Your task to perform on an android device: Search for the new nike air max 270 on Nike.com Image 0: 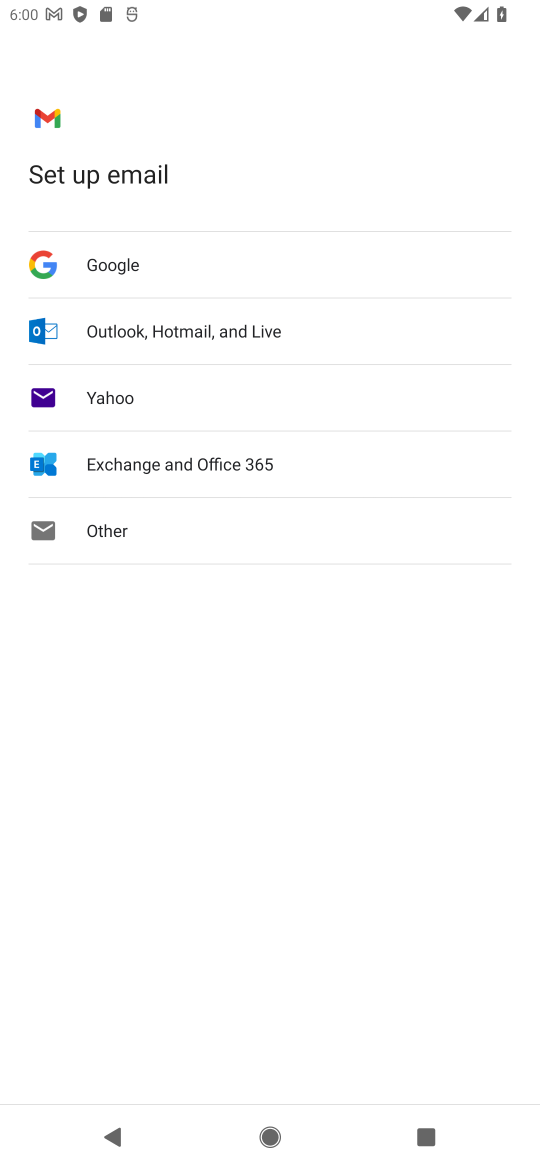
Step 0: press home button
Your task to perform on an android device: Search for the new nike air max 270 on Nike.com Image 1: 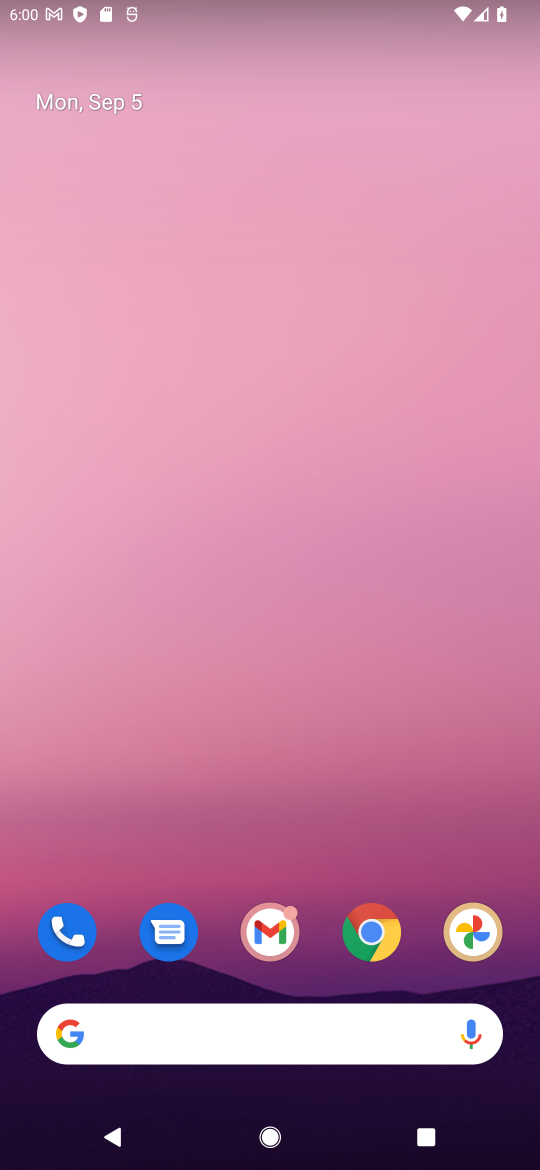
Step 1: drag from (309, 998) to (247, 195)
Your task to perform on an android device: Search for the new nike air max 270 on Nike.com Image 2: 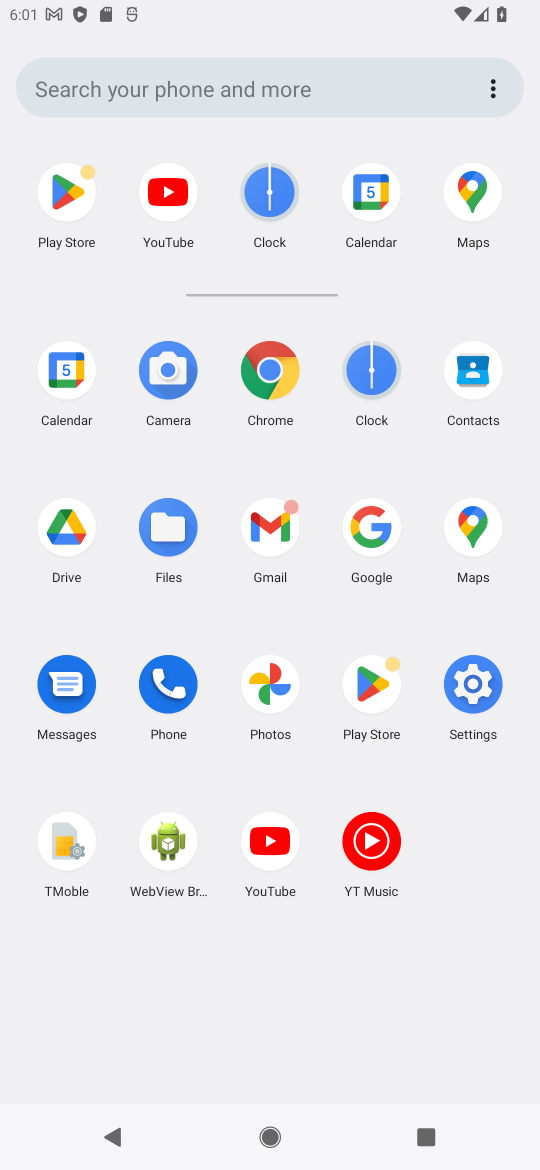
Step 2: click (269, 368)
Your task to perform on an android device: Search for the new nike air max 270 on Nike.com Image 3: 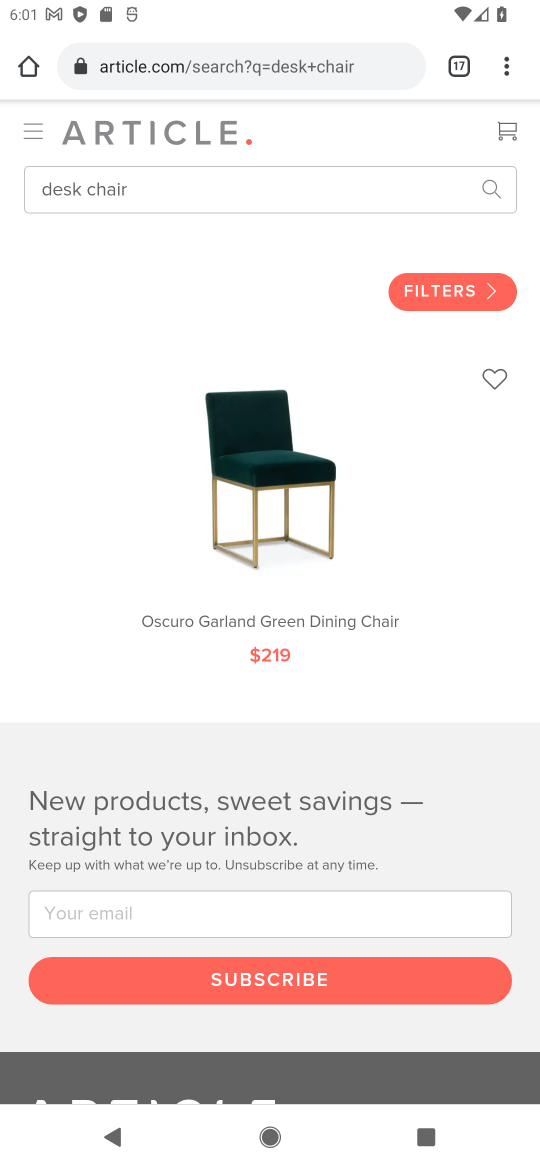
Step 3: click (504, 78)
Your task to perform on an android device: Search for the new nike air max 270 on Nike.com Image 4: 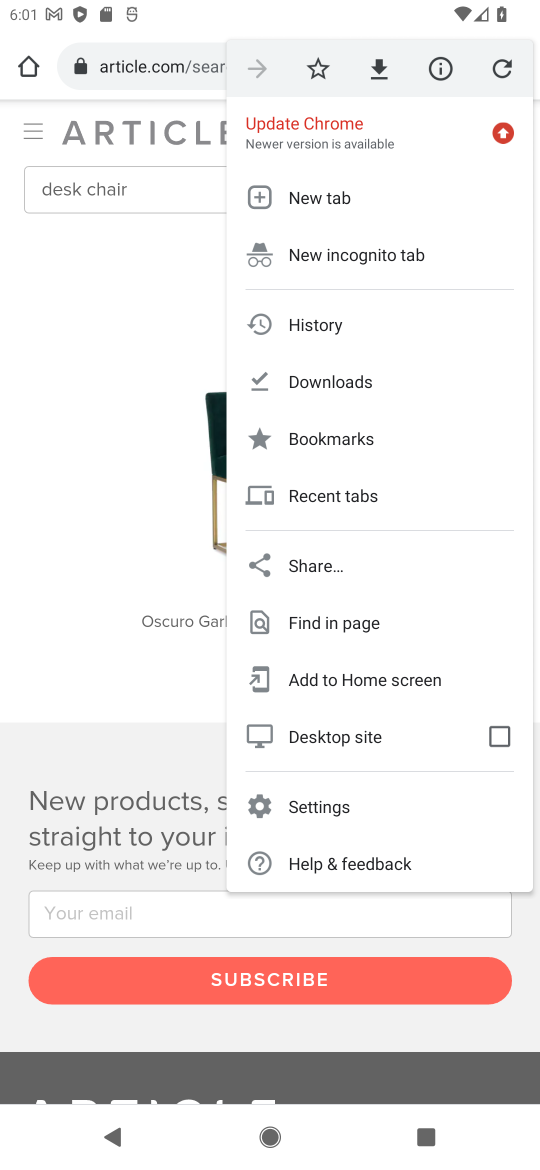
Step 4: click (311, 196)
Your task to perform on an android device: Search for the new nike air max 270 on Nike.com Image 5: 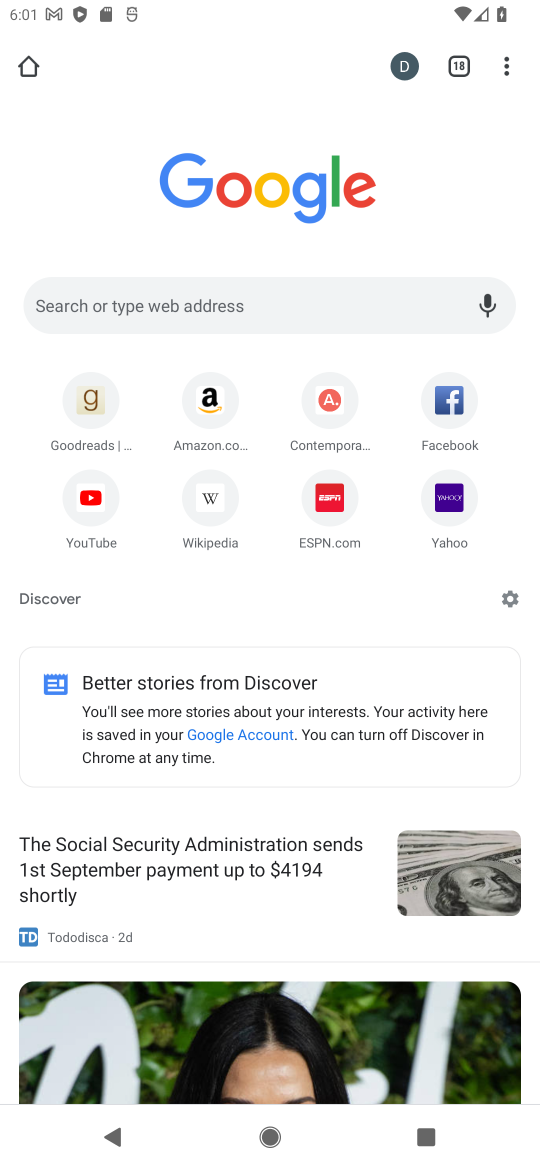
Step 5: click (197, 303)
Your task to perform on an android device: Search for the new nike air max 270 on Nike.com Image 6: 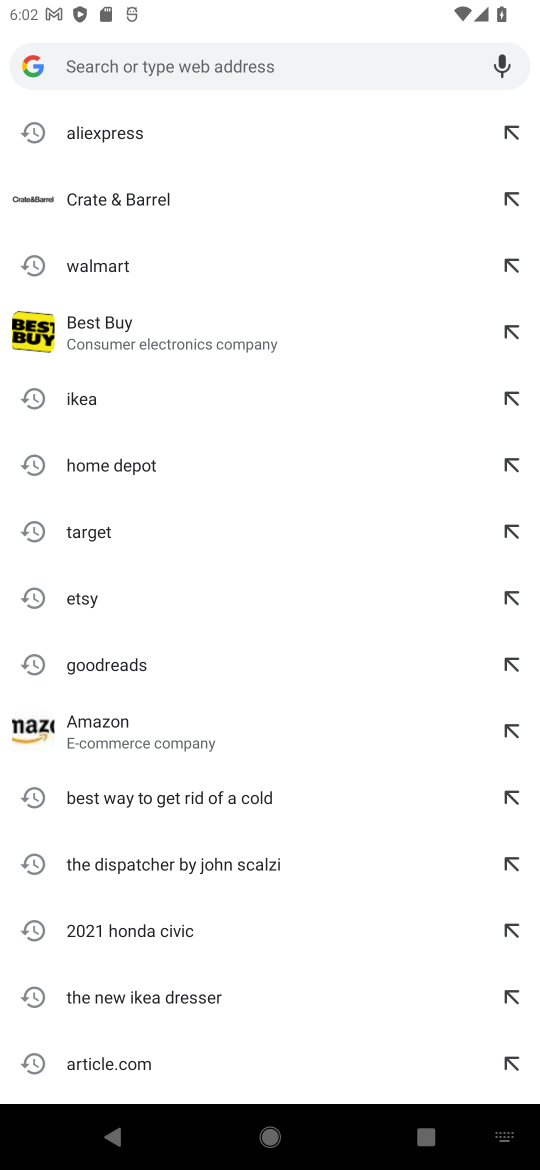
Step 6: type "Nike.com"
Your task to perform on an android device: Search for the new nike air max 270 on Nike.com Image 7: 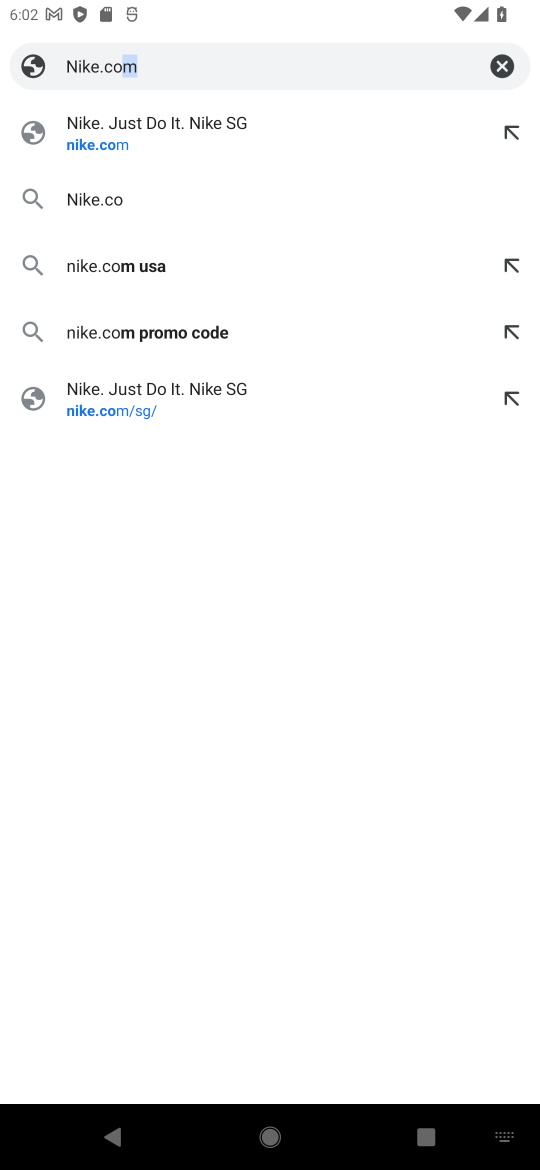
Step 7: type ""
Your task to perform on an android device: Search for the new nike air max 270 on Nike.com Image 8: 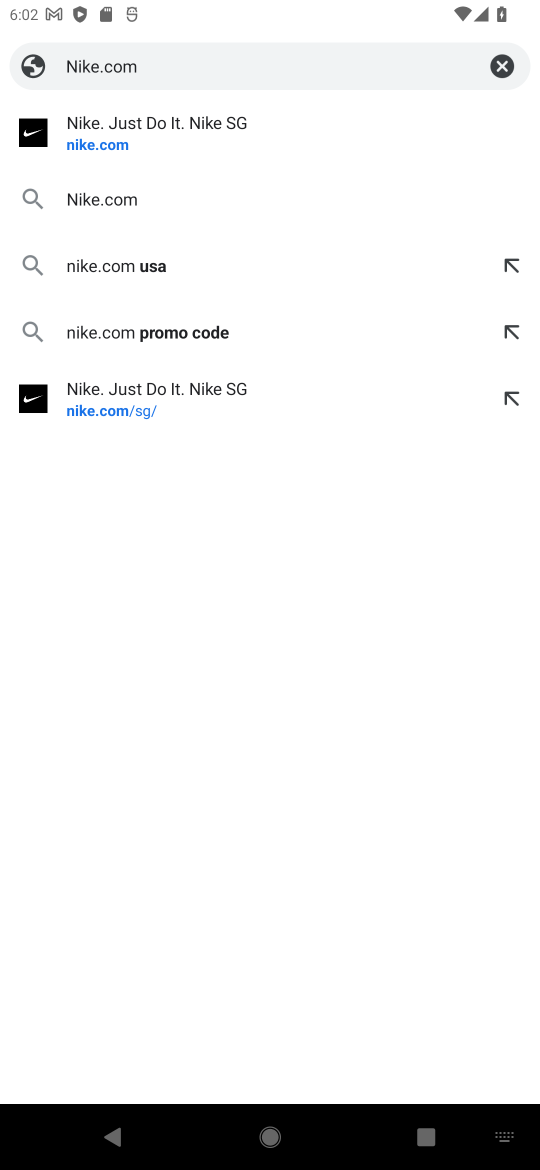
Step 8: click (112, 205)
Your task to perform on an android device: Search for the new nike air max 270 on Nike.com Image 9: 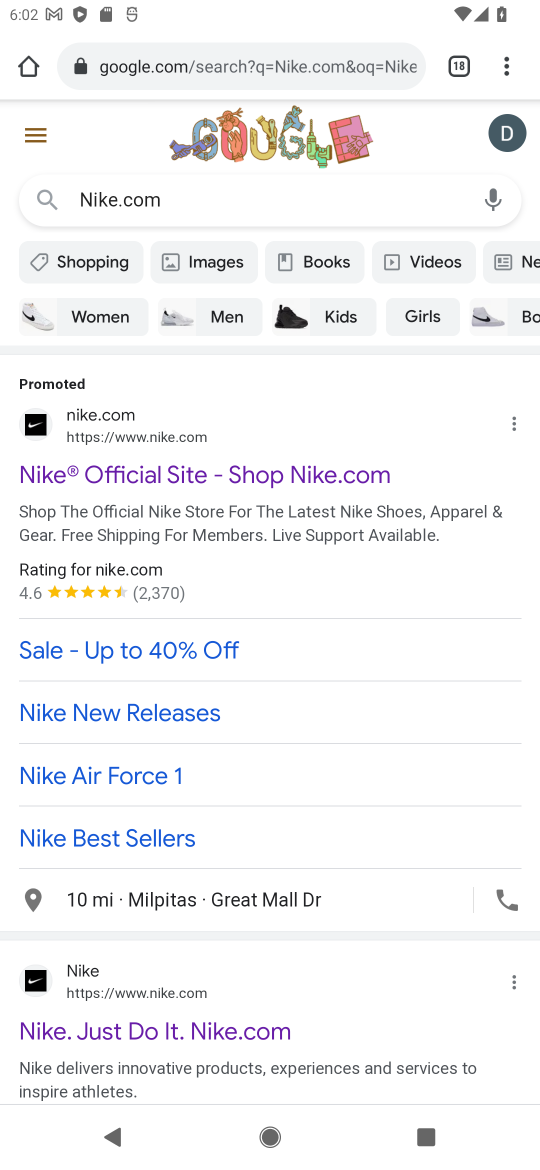
Step 9: click (172, 481)
Your task to perform on an android device: Search for the new nike air max 270 on Nike.com Image 10: 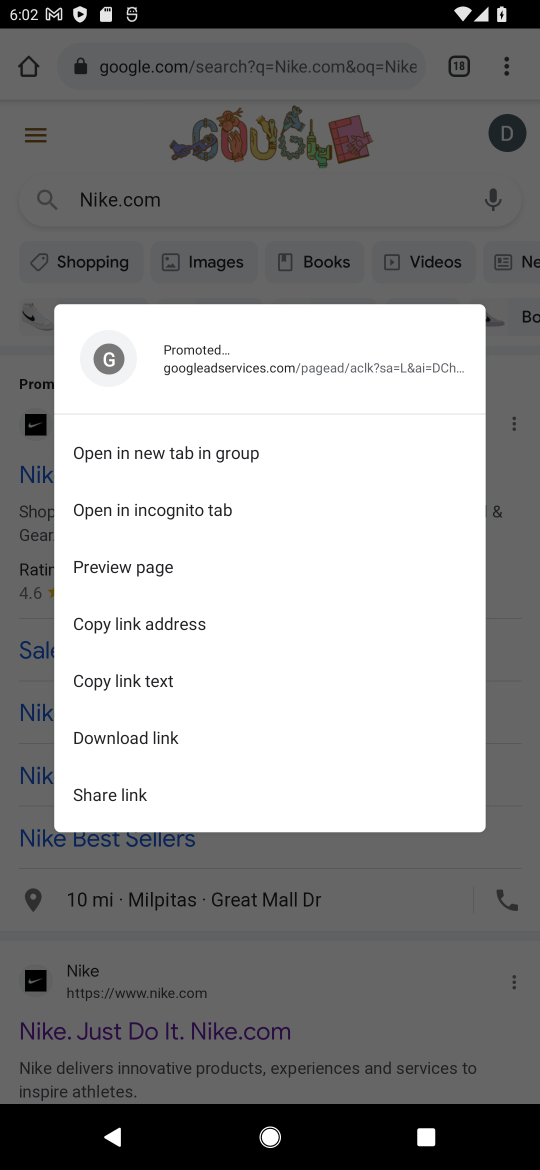
Step 10: click (364, 892)
Your task to perform on an android device: Search for the new nike air max 270 on Nike.com Image 11: 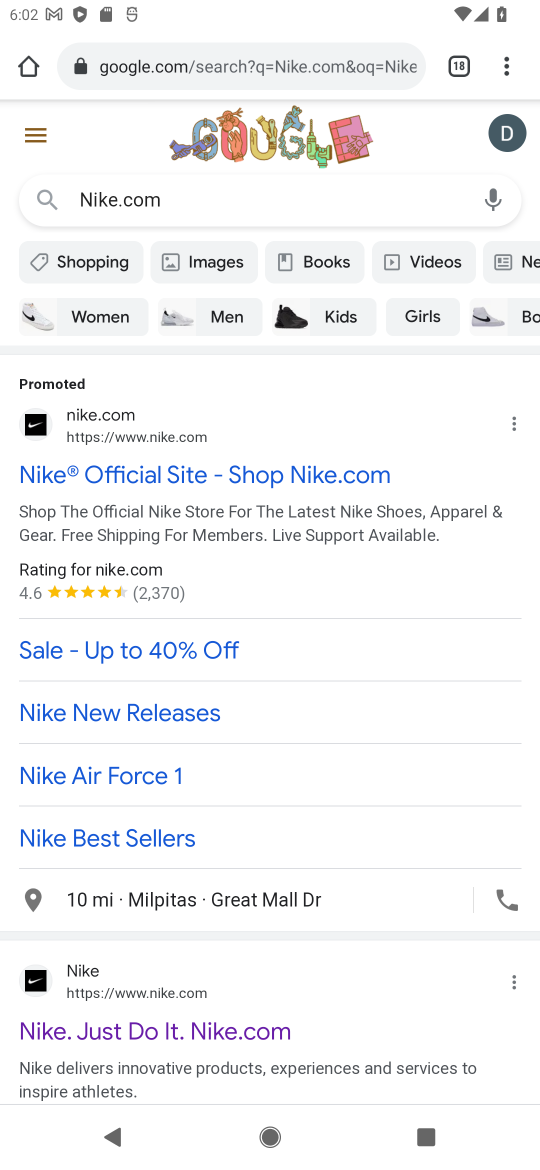
Step 11: click (103, 474)
Your task to perform on an android device: Search for the new nike air max 270 on Nike.com Image 12: 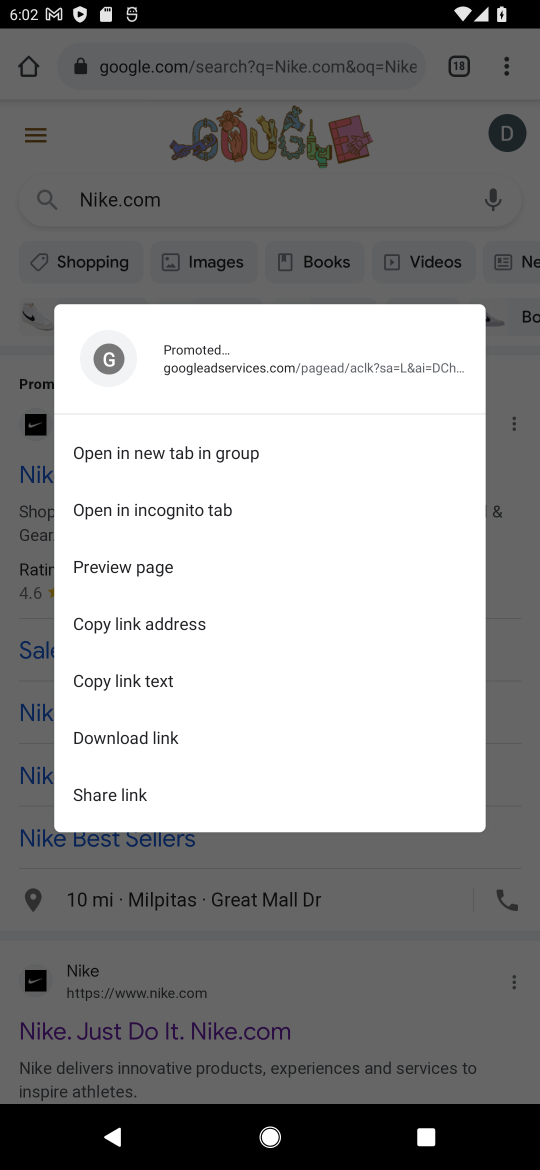
Step 12: click (36, 461)
Your task to perform on an android device: Search for the new nike air max 270 on Nike.com Image 13: 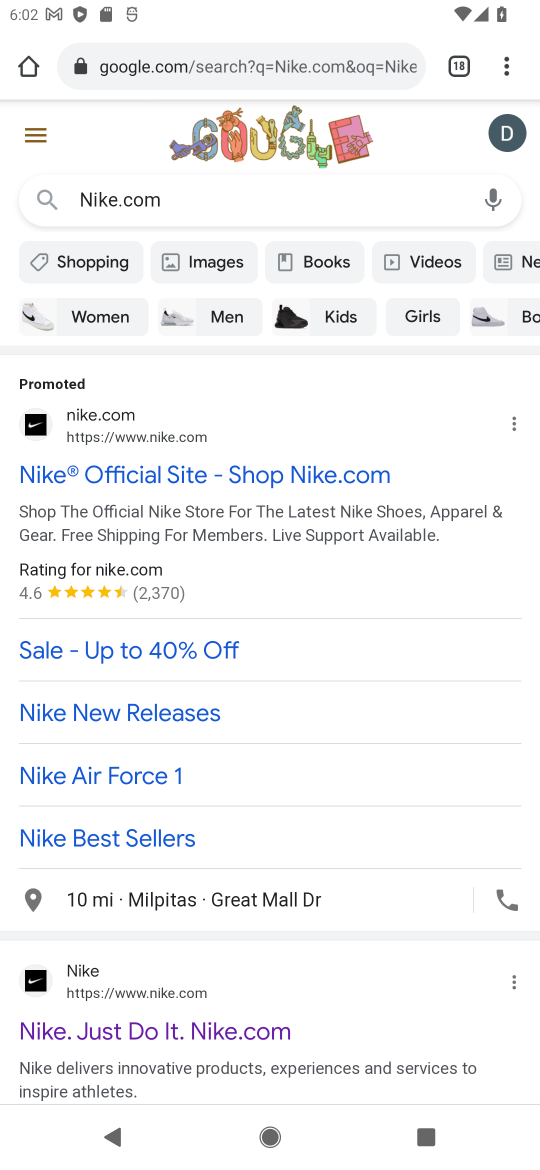
Step 13: click (45, 477)
Your task to perform on an android device: Search for the new nike air max 270 on Nike.com Image 14: 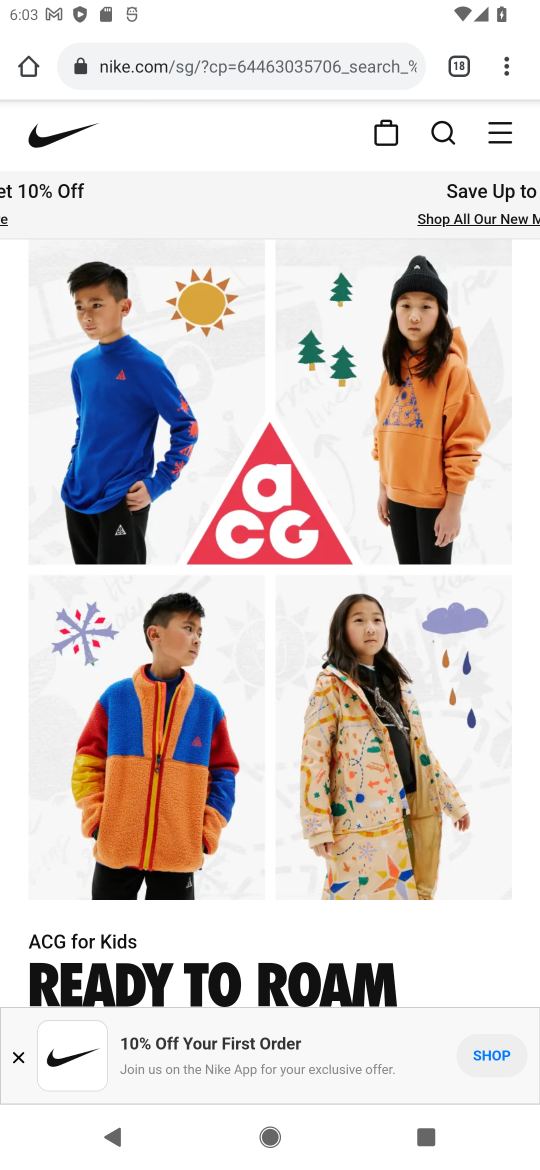
Step 14: click (437, 125)
Your task to perform on an android device: Search for the new nike air max 270 on Nike.com Image 15: 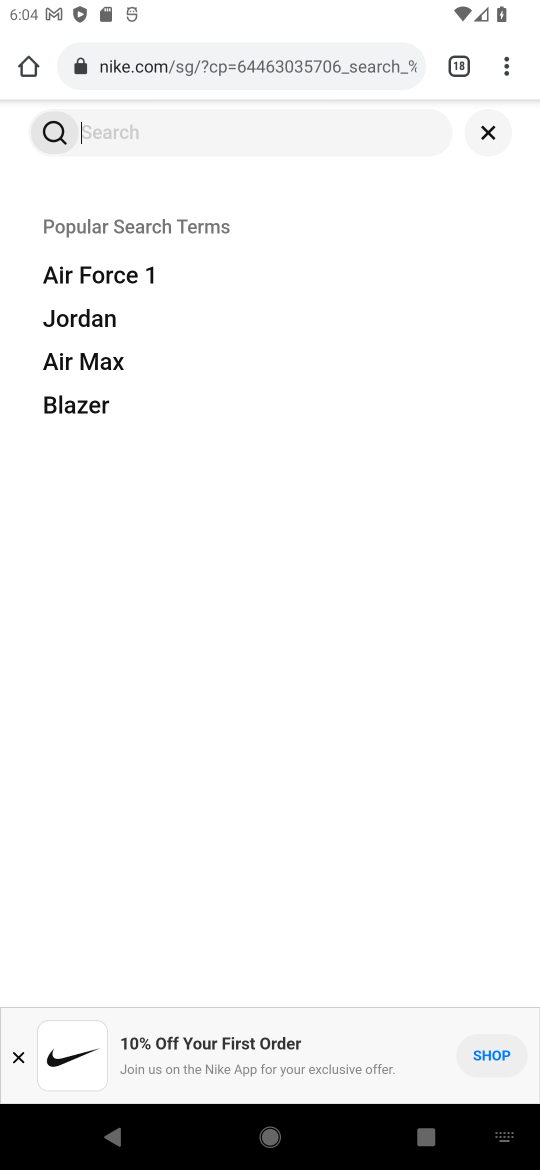
Step 15: type "nike air max 270"
Your task to perform on an android device: Search for the new nike air max 270 on Nike.com Image 16: 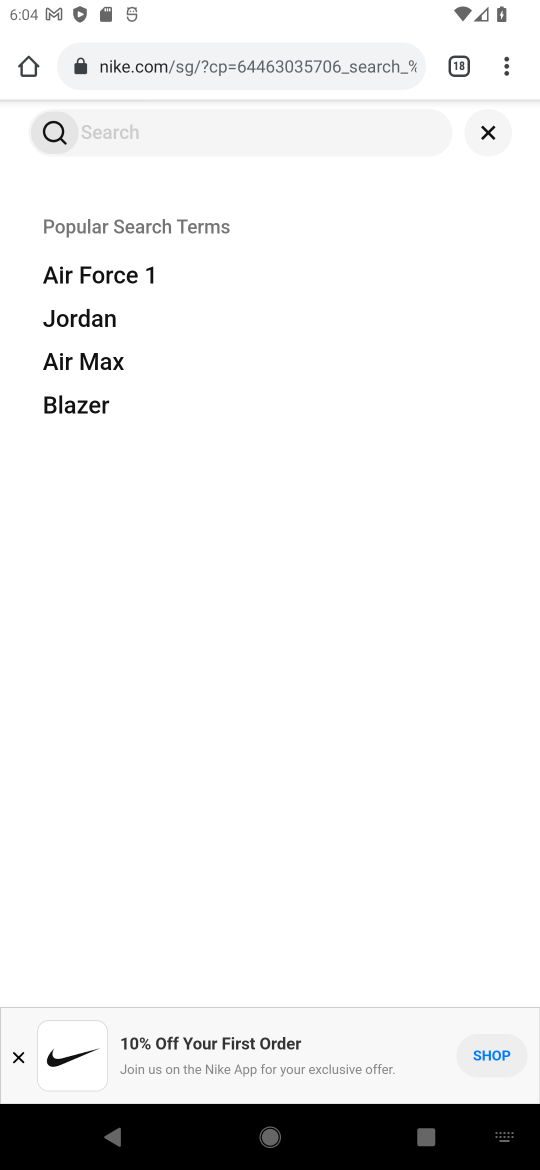
Step 16: type ""
Your task to perform on an android device: Search for the new nike air max 270 on Nike.com Image 17: 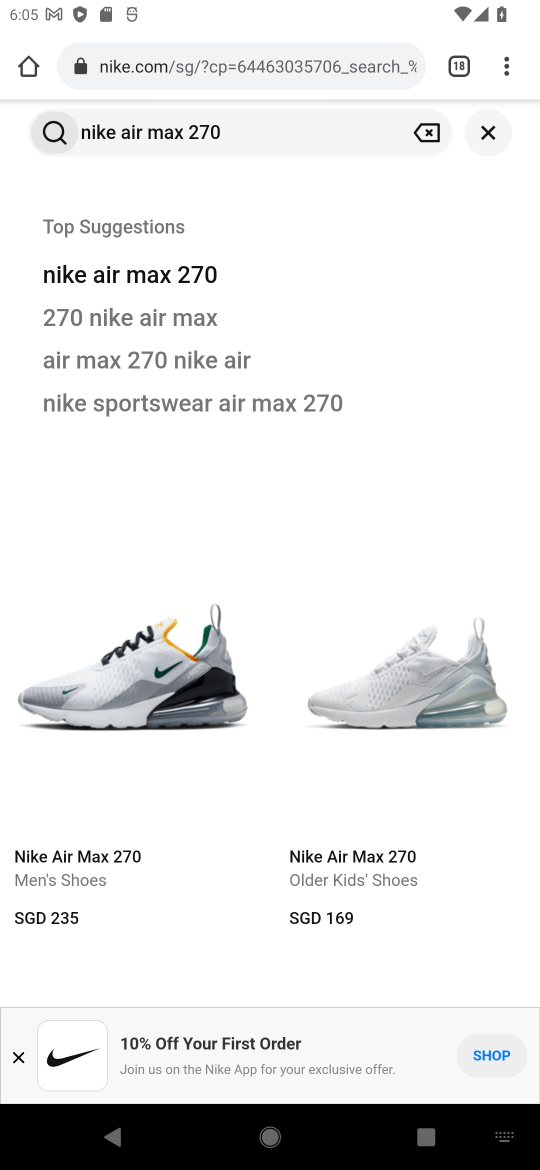
Step 17: task complete